Your task to perform on an android device: turn off priority inbox in the gmail app Image 0: 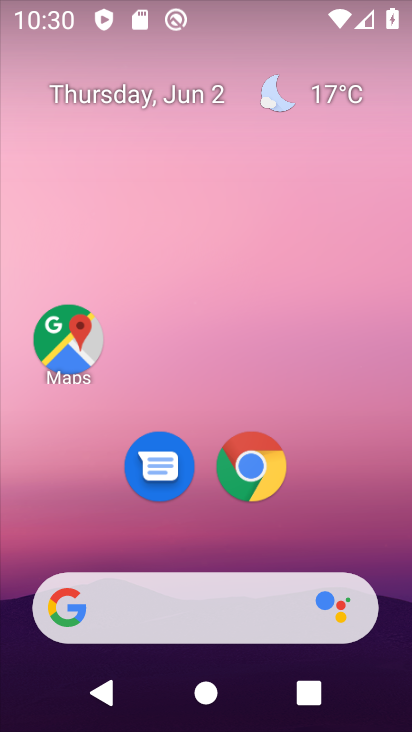
Step 0: press home button
Your task to perform on an android device: turn off priority inbox in the gmail app Image 1: 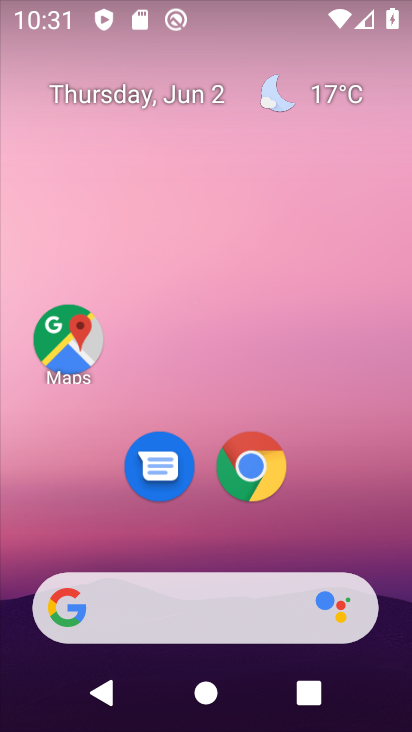
Step 1: drag from (232, 545) to (259, 33)
Your task to perform on an android device: turn off priority inbox in the gmail app Image 2: 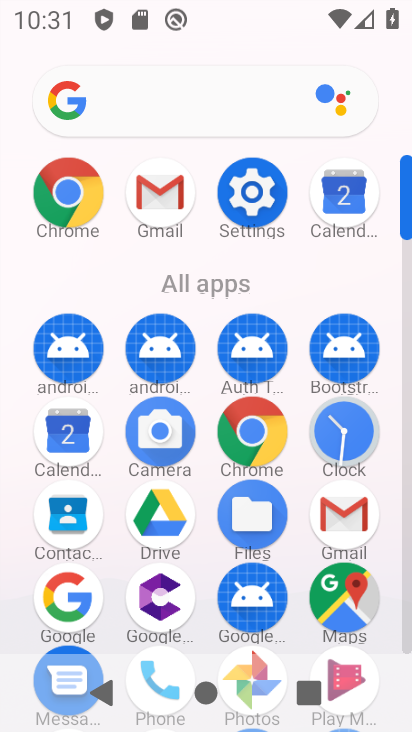
Step 2: click (169, 191)
Your task to perform on an android device: turn off priority inbox in the gmail app Image 3: 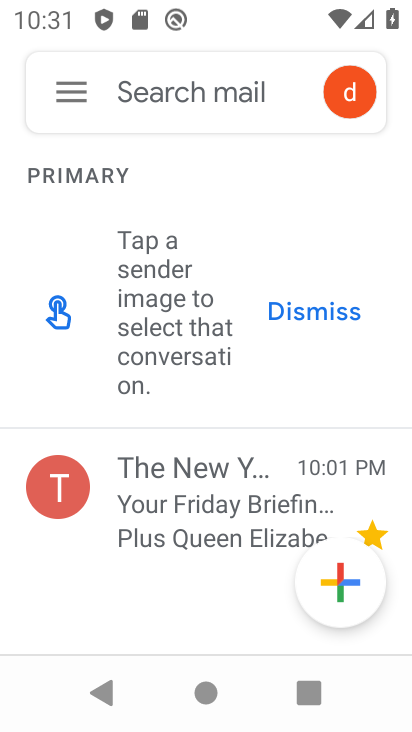
Step 3: click (91, 99)
Your task to perform on an android device: turn off priority inbox in the gmail app Image 4: 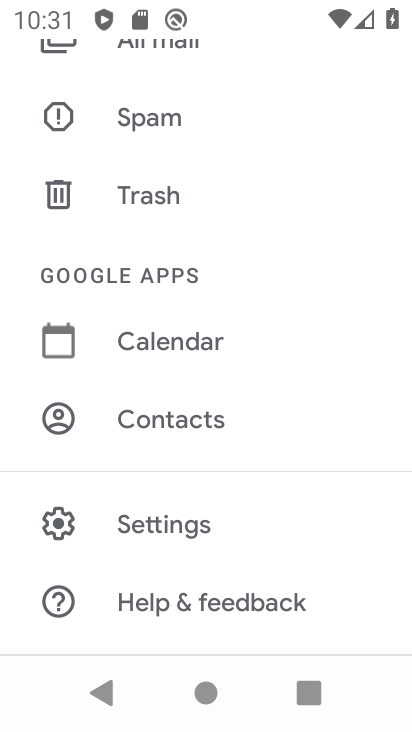
Step 4: click (164, 524)
Your task to perform on an android device: turn off priority inbox in the gmail app Image 5: 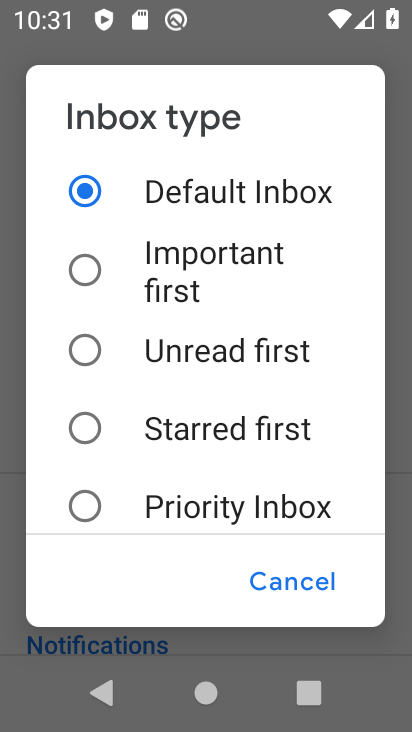
Step 5: task complete